Your task to perform on an android device: Open eBay Image 0: 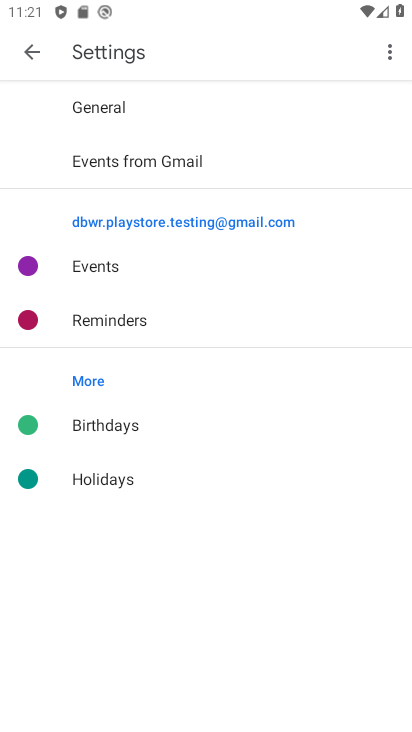
Step 0: press back button
Your task to perform on an android device: Open eBay Image 1: 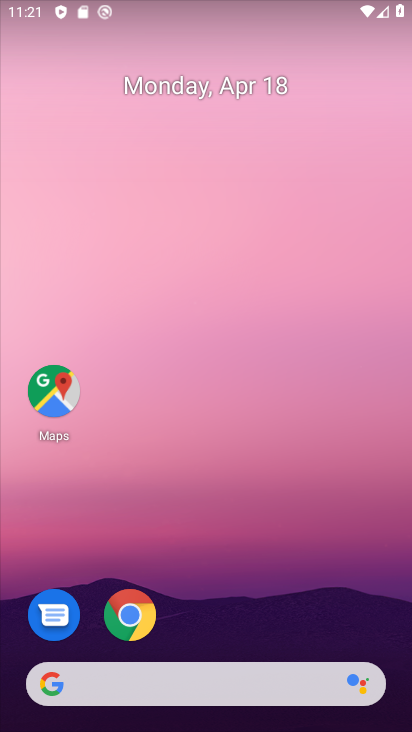
Step 1: click (131, 615)
Your task to perform on an android device: Open eBay Image 2: 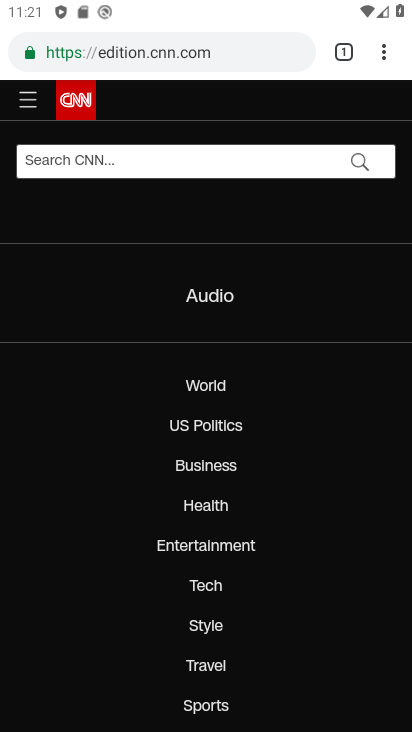
Step 2: click (385, 50)
Your task to perform on an android device: Open eBay Image 3: 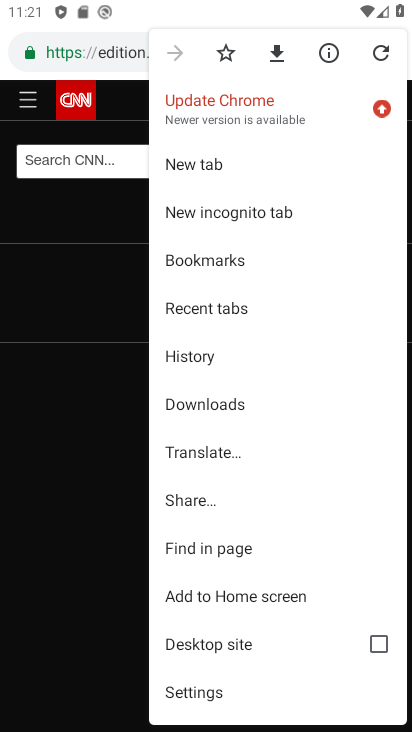
Step 3: click (203, 160)
Your task to perform on an android device: Open eBay Image 4: 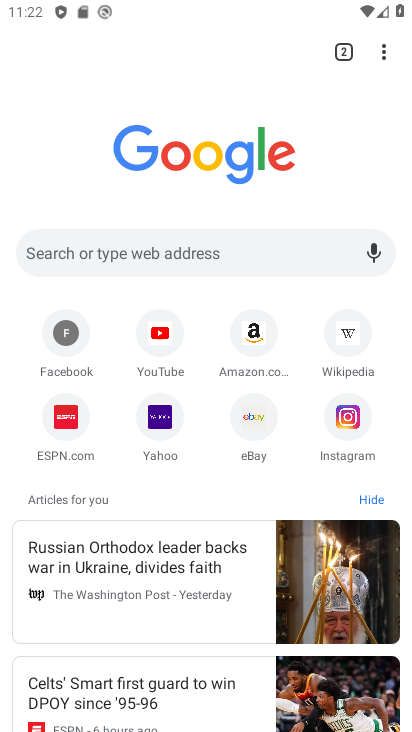
Step 4: click (252, 412)
Your task to perform on an android device: Open eBay Image 5: 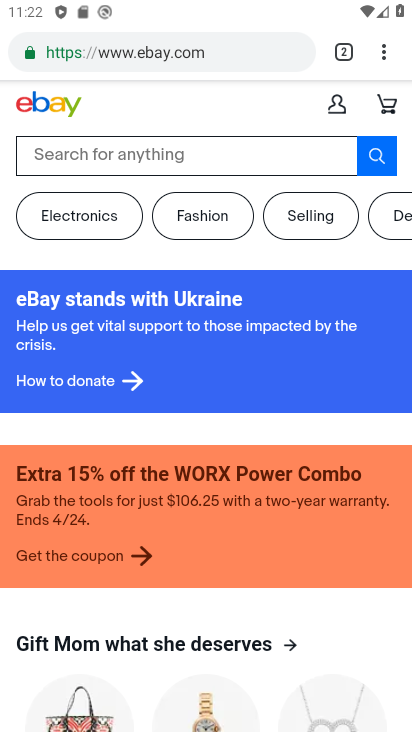
Step 5: task complete